Your task to perform on an android device: Open Google Chrome and click the shortcut for Amazon.com Image 0: 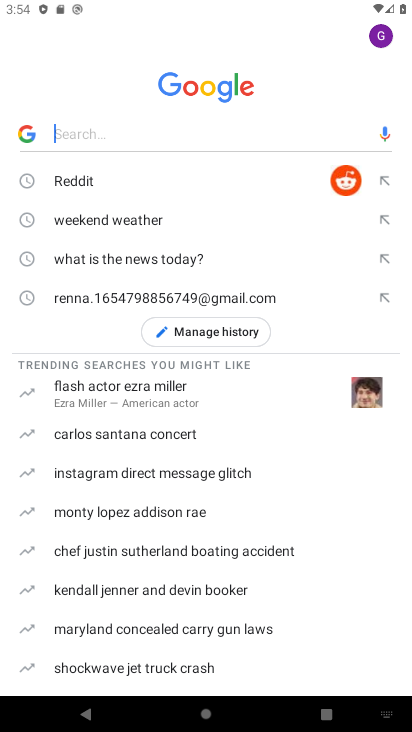
Step 0: press home button
Your task to perform on an android device: Open Google Chrome and click the shortcut for Amazon.com Image 1: 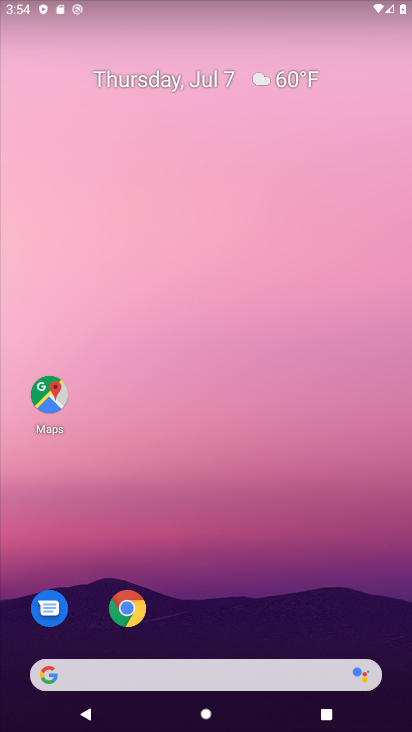
Step 1: click (131, 596)
Your task to perform on an android device: Open Google Chrome and click the shortcut for Amazon.com Image 2: 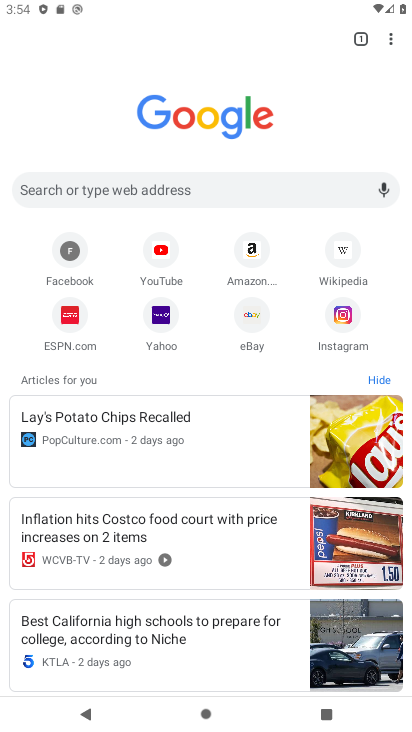
Step 2: click (253, 251)
Your task to perform on an android device: Open Google Chrome and click the shortcut for Amazon.com Image 3: 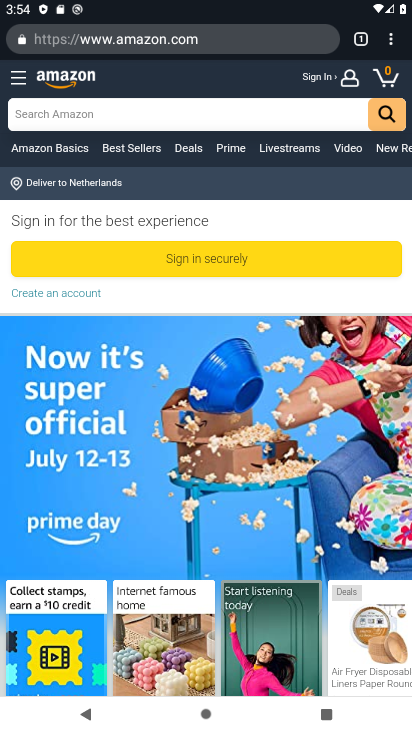
Step 3: click (253, 251)
Your task to perform on an android device: Open Google Chrome and click the shortcut for Amazon.com Image 4: 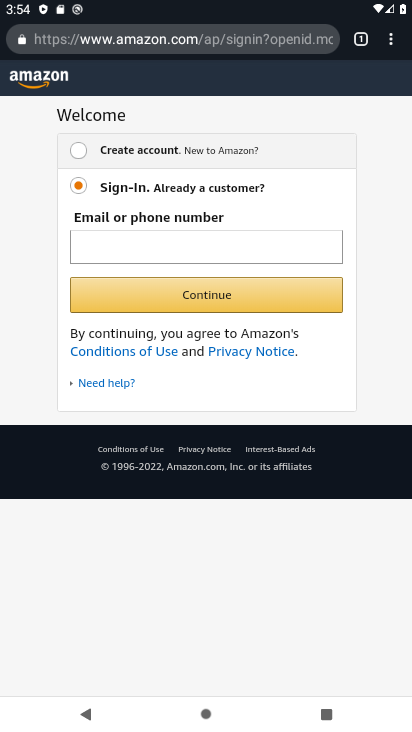
Step 4: task complete